Your task to perform on an android device: Open Chrome and go to settings Image 0: 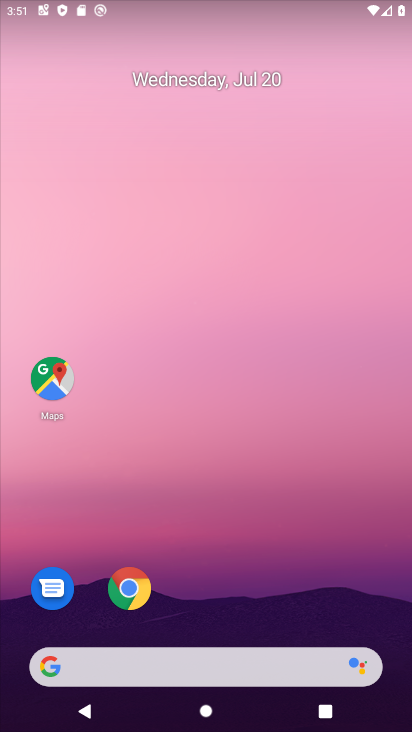
Step 0: drag from (295, 503) to (299, 36)
Your task to perform on an android device: Open Chrome and go to settings Image 1: 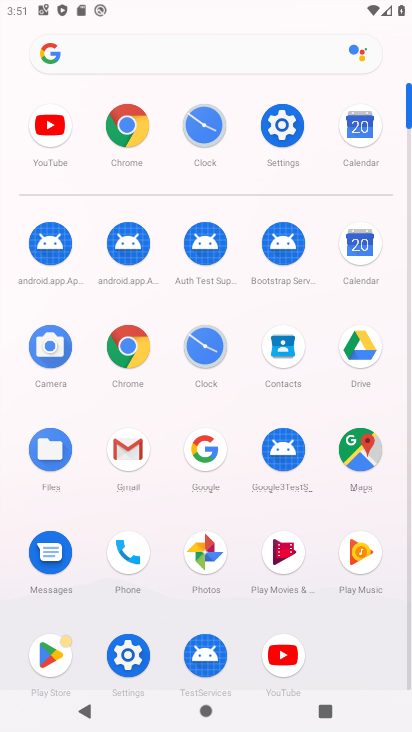
Step 1: click (125, 118)
Your task to perform on an android device: Open Chrome and go to settings Image 2: 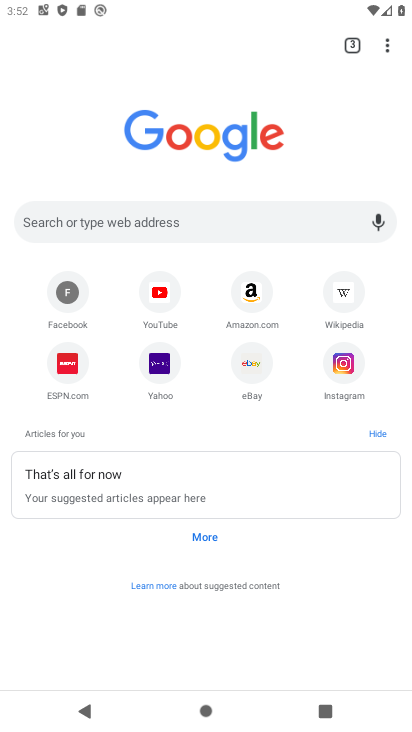
Step 2: task complete